Your task to perform on an android device: check storage Image 0: 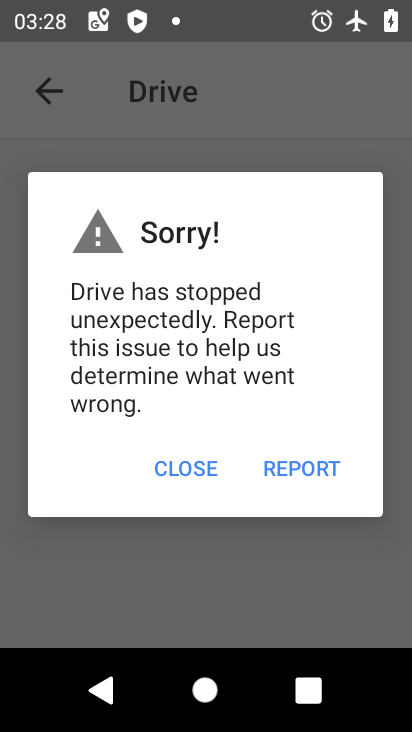
Step 0: press home button
Your task to perform on an android device: check storage Image 1: 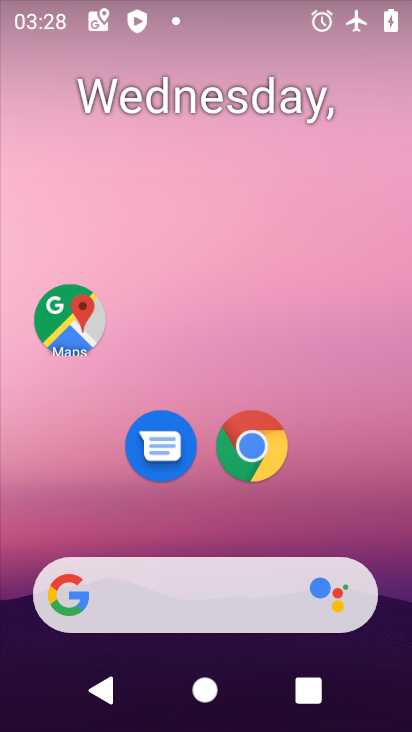
Step 1: drag from (229, 518) to (221, 153)
Your task to perform on an android device: check storage Image 2: 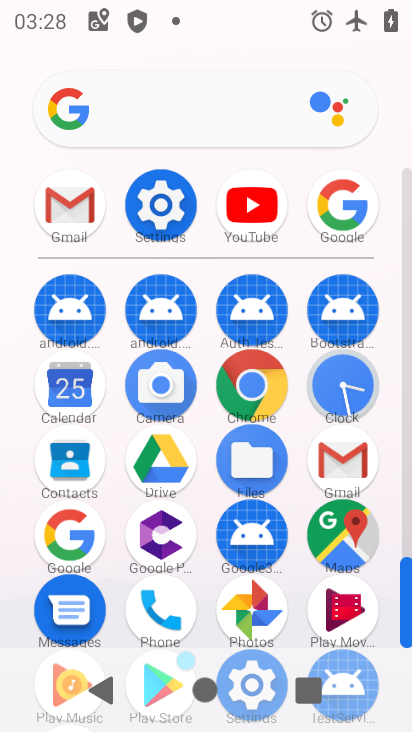
Step 2: click (175, 197)
Your task to perform on an android device: check storage Image 3: 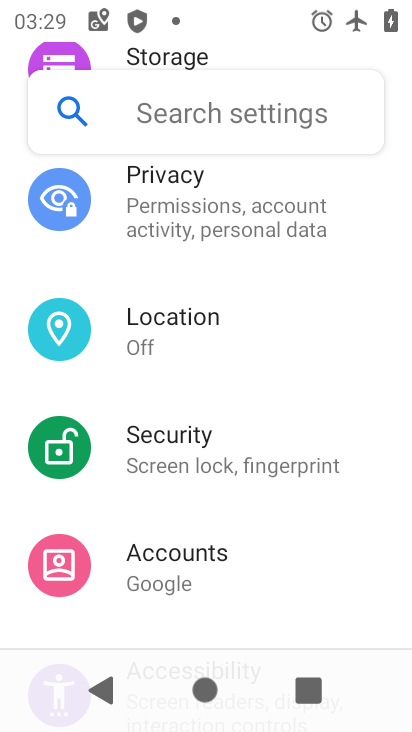
Step 3: drag from (231, 234) to (293, 506)
Your task to perform on an android device: check storage Image 4: 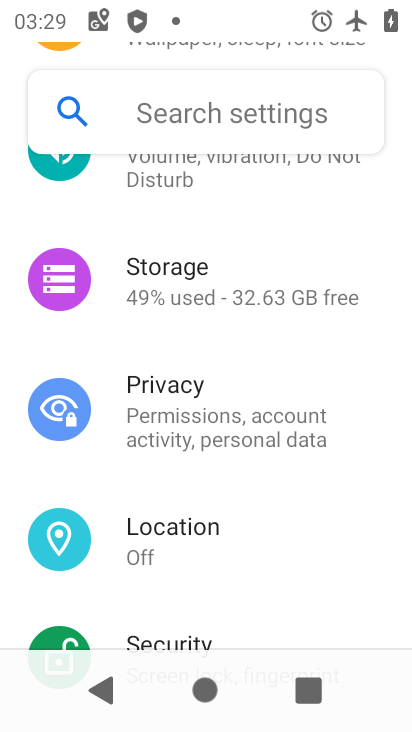
Step 4: click (168, 288)
Your task to perform on an android device: check storage Image 5: 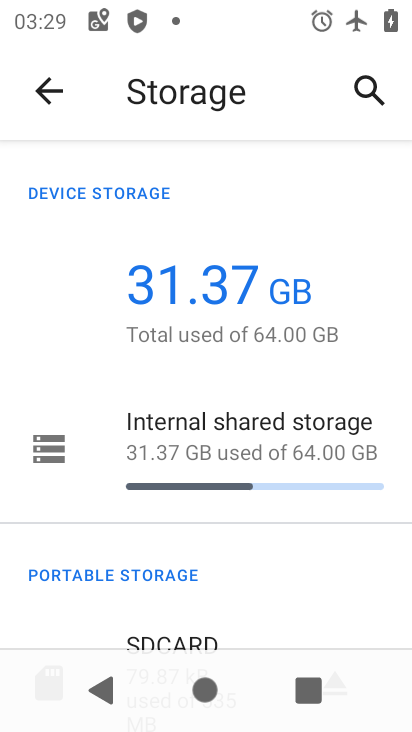
Step 5: task complete